Your task to perform on an android device: turn on notifications settings in the gmail app Image 0: 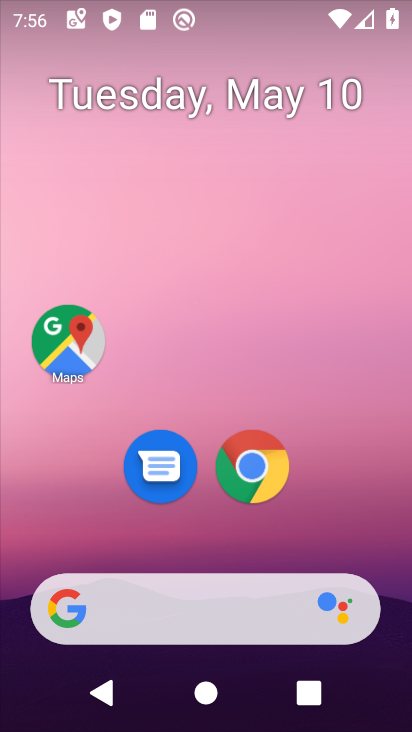
Step 0: drag from (313, 519) to (162, 55)
Your task to perform on an android device: turn on notifications settings in the gmail app Image 1: 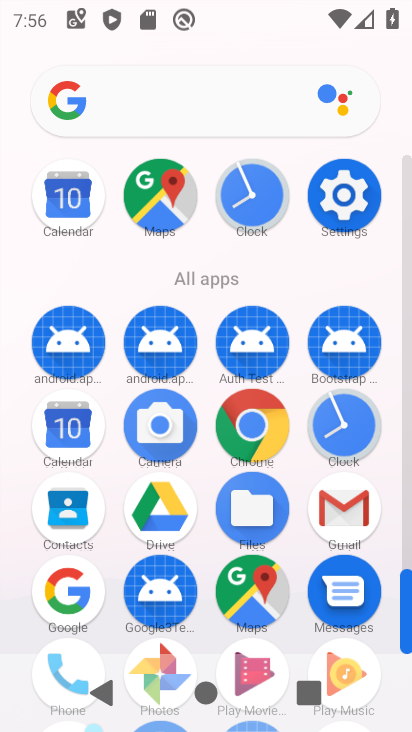
Step 1: click (333, 501)
Your task to perform on an android device: turn on notifications settings in the gmail app Image 2: 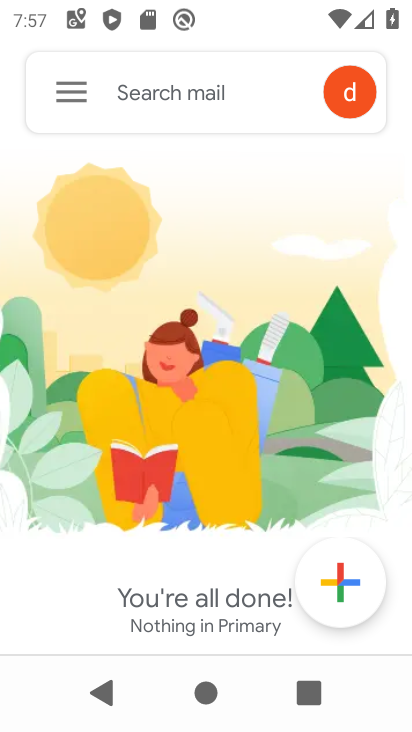
Step 2: click (77, 99)
Your task to perform on an android device: turn on notifications settings in the gmail app Image 3: 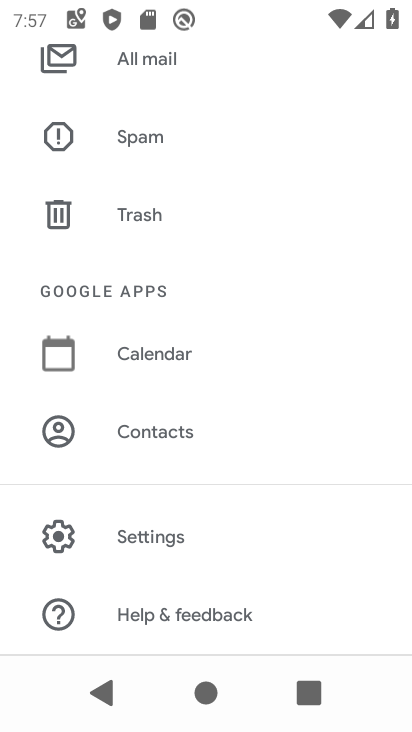
Step 3: click (199, 519)
Your task to perform on an android device: turn on notifications settings in the gmail app Image 4: 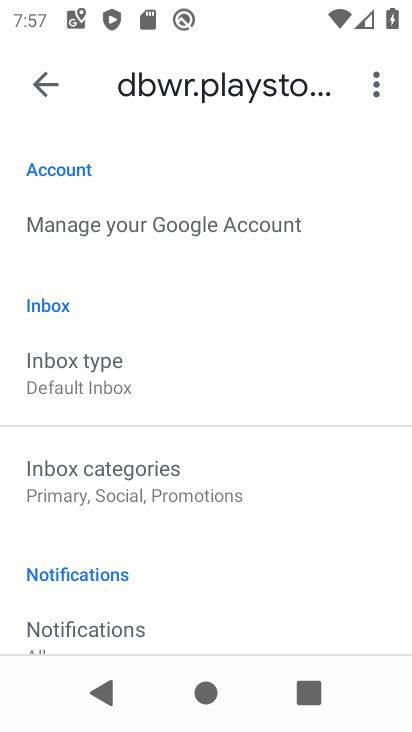
Step 4: drag from (129, 577) to (70, 377)
Your task to perform on an android device: turn on notifications settings in the gmail app Image 5: 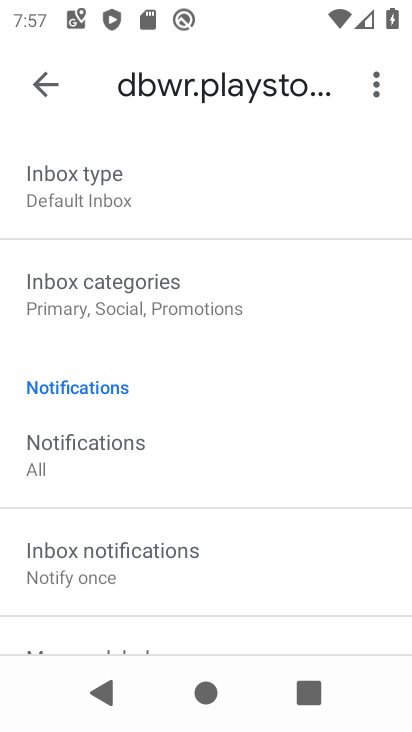
Step 5: drag from (125, 570) to (76, 396)
Your task to perform on an android device: turn on notifications settings in the gmail app Image 6: 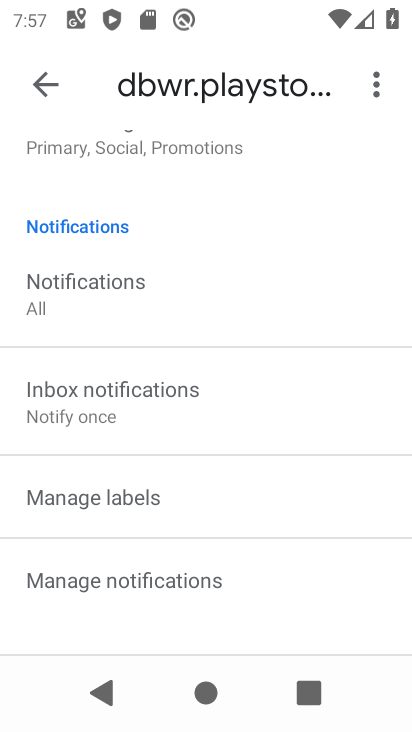
Step 6: click (123, 585)
Your task to perform on an android device: turn on notifications settings in the gmail app Image 7: 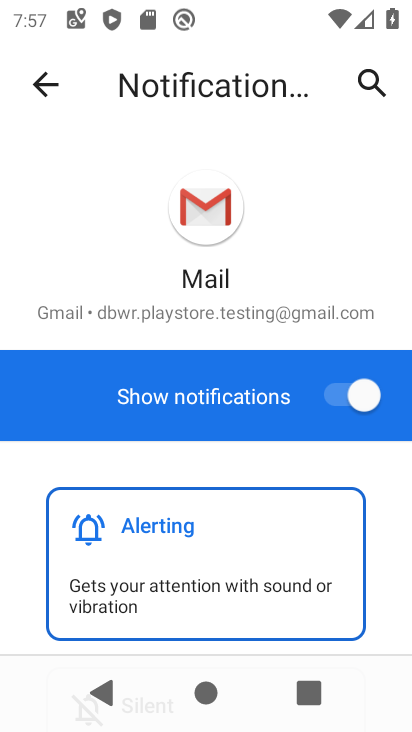
Step 7: task complete